Your task to perform on an android device: Clear the shopping cart on amazon. Search for usb-b on amazon, select the first entry, add it to the cart, then select checkout. Image 0: 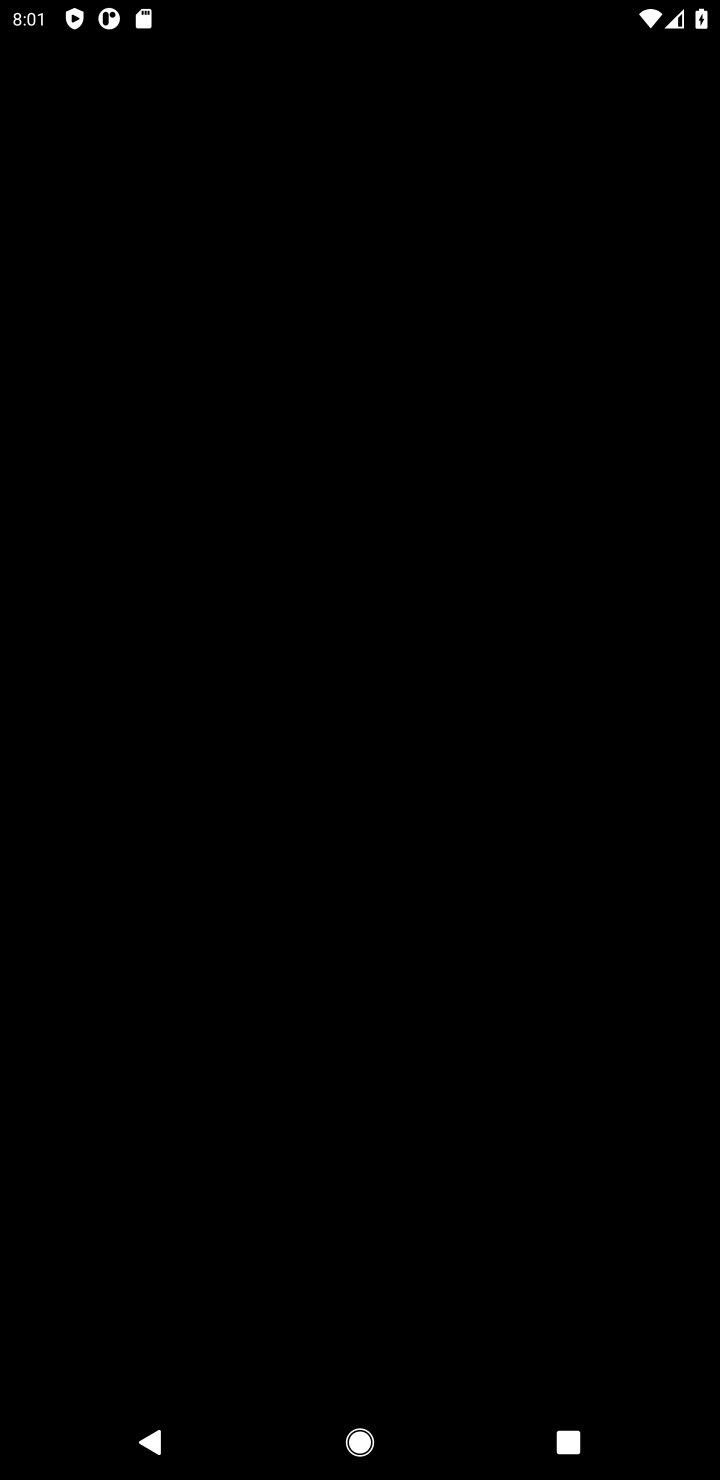
Step 0: press home button
Your task to perform on an android device: Clear the shopping cart on amazon. Search for usb-b on amazon, select the first entry, add it to the cart, then select checkout. Image 1: 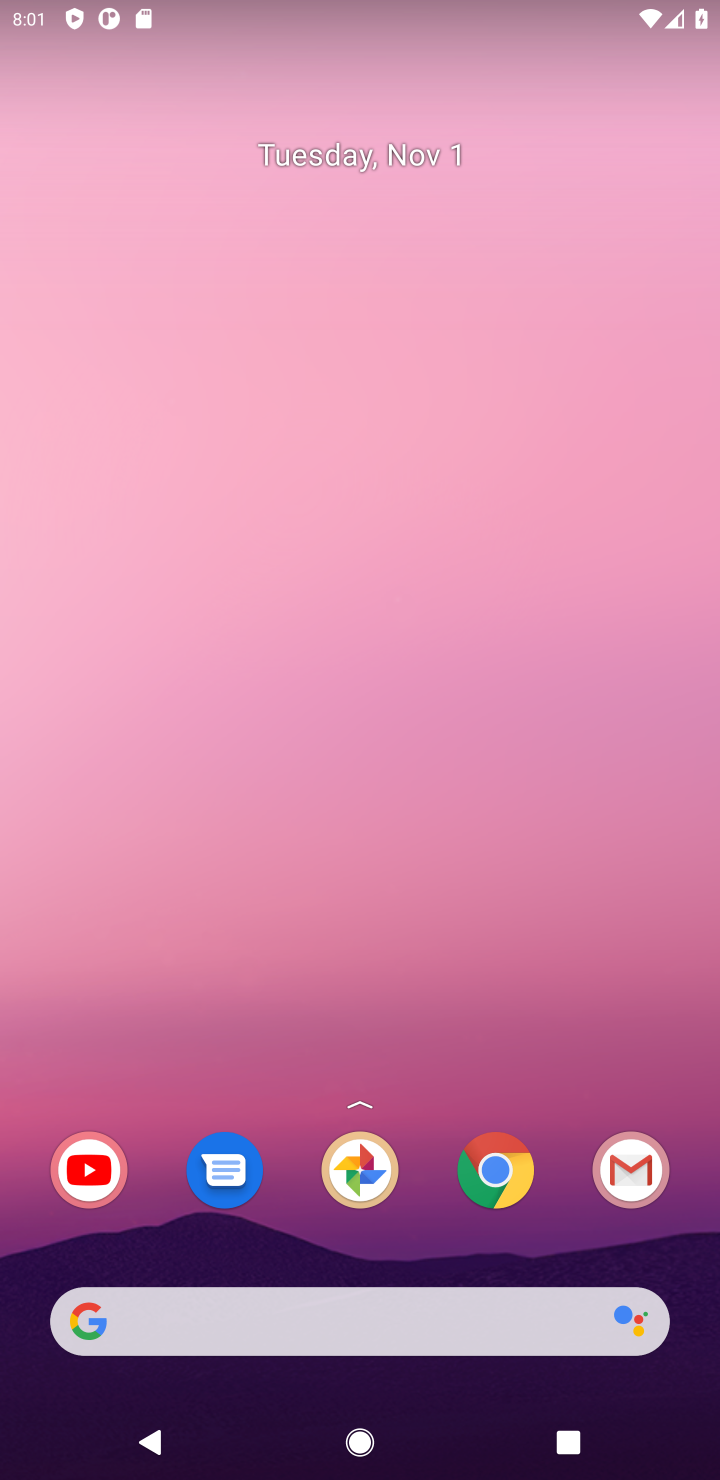
Step 1: click (515, 1199)
Your task to perform on an android device: Clear the shopping cart on amazon. Search for usb-b on amazon, select the first entry, add it to the cart, then select checkout. Image 2: 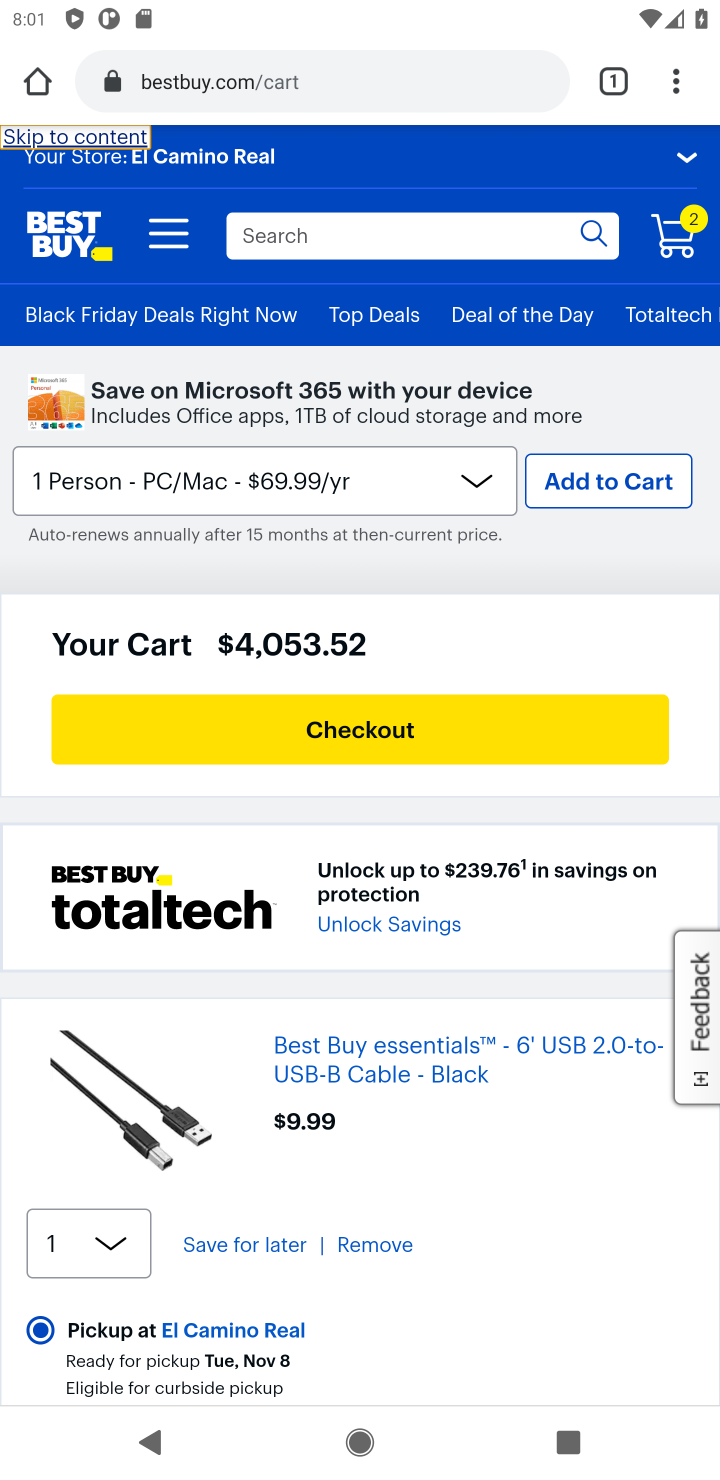
Step 2: click (360, 80)
Your task to perform on an android device: Clear the shopping cart on amazon. Search for usb-b on amazon, select the first entry, add it to the cart, then select checkout. Image 3: 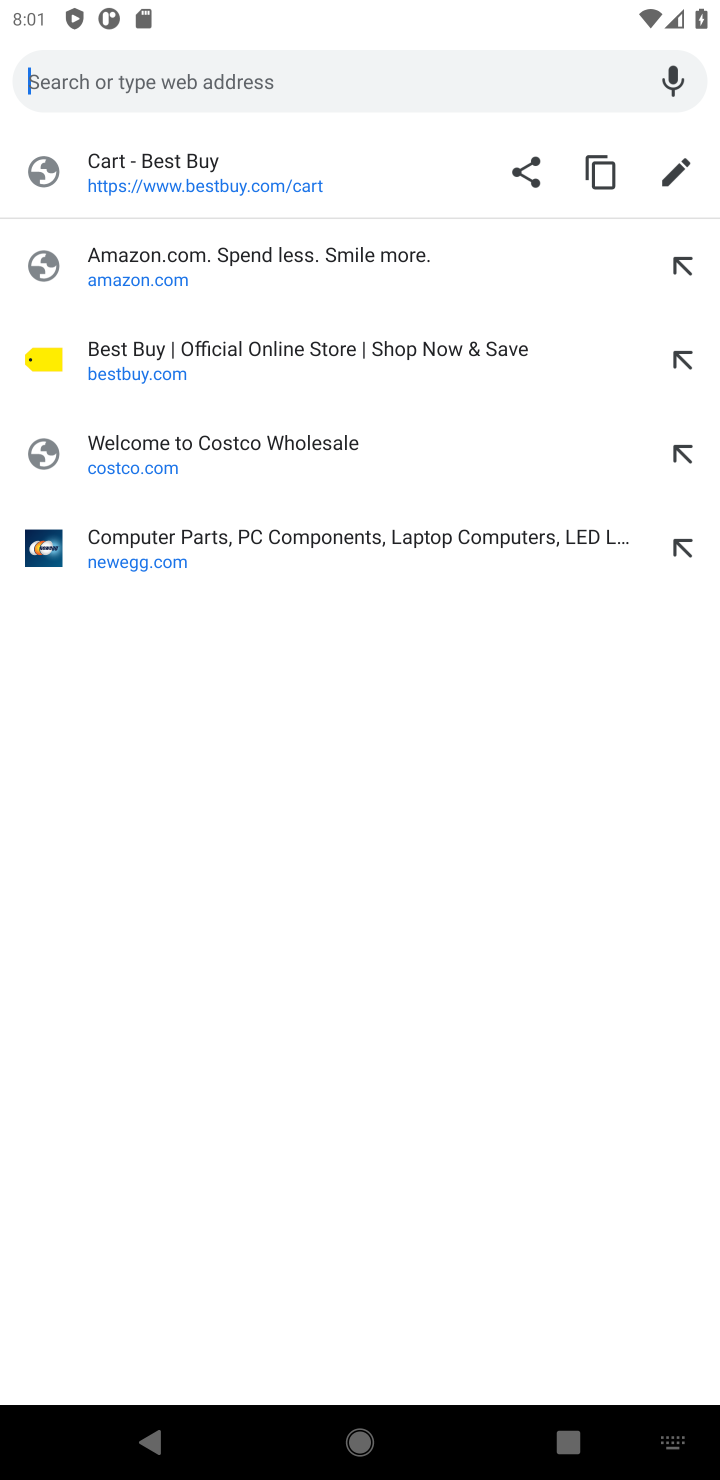
Step 3: type "amazon"
Your task to perform on an android device: Clear the shopping cart on amazon. Search for usb-b on amazon, select the first entry, add it to the cart, then select checkout. Image 4: 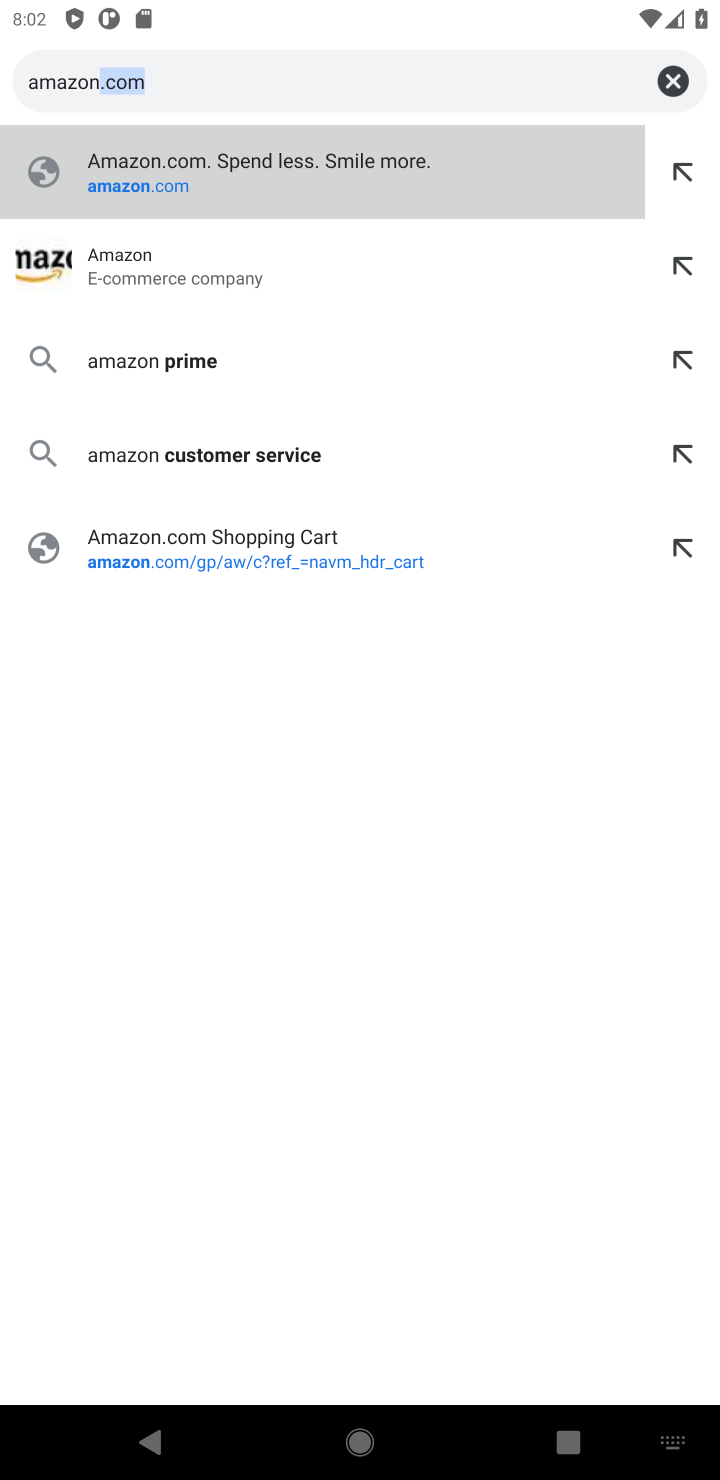
Step 4: press enter
Your task to perform on an android device: Clear the shopping cart on amazon. Search for usb-b on amazon, select the first entry, add it to the cart, then select checkout. Image 5: 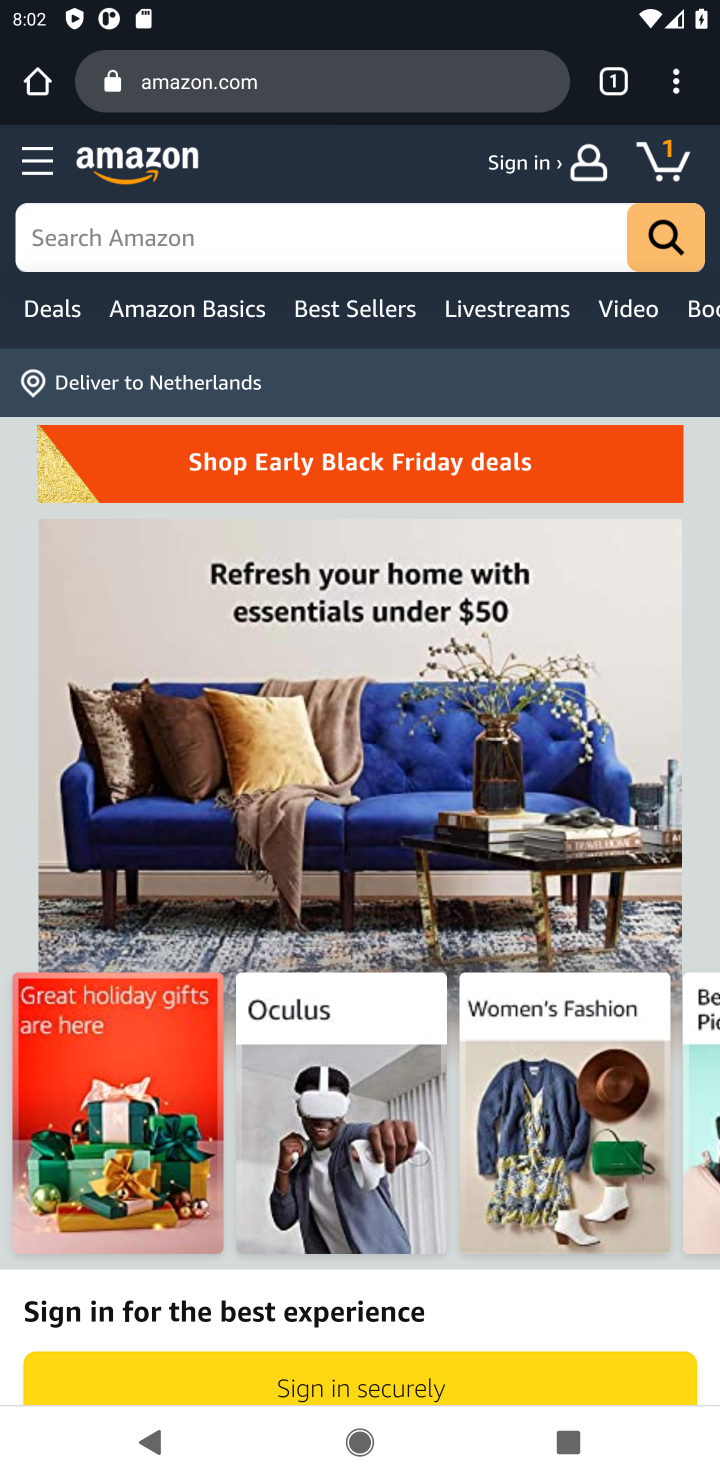
Step 5: click (660, 151)
Your task to perform on an android device: Clear the shopping cart on amazon. Search for usb-b on amazon, select the first entry, add it to the cart, then select checkout. Image 6: 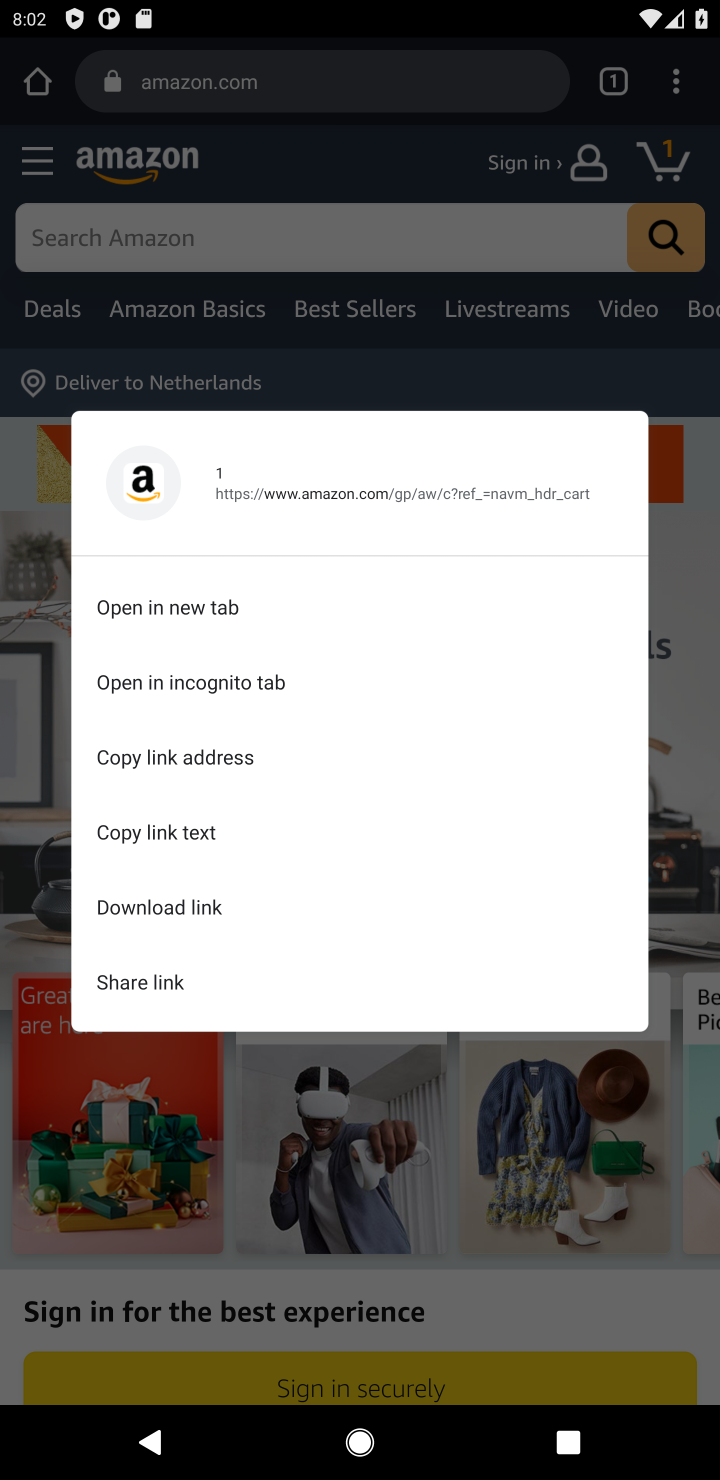
Step 6: click (672, 150)
Your task to perform on an android device: Clear the shopping cart on amazon. Search for usb-b on amazon, select the first entry, add it to the cart, then select checkout. Image 7: 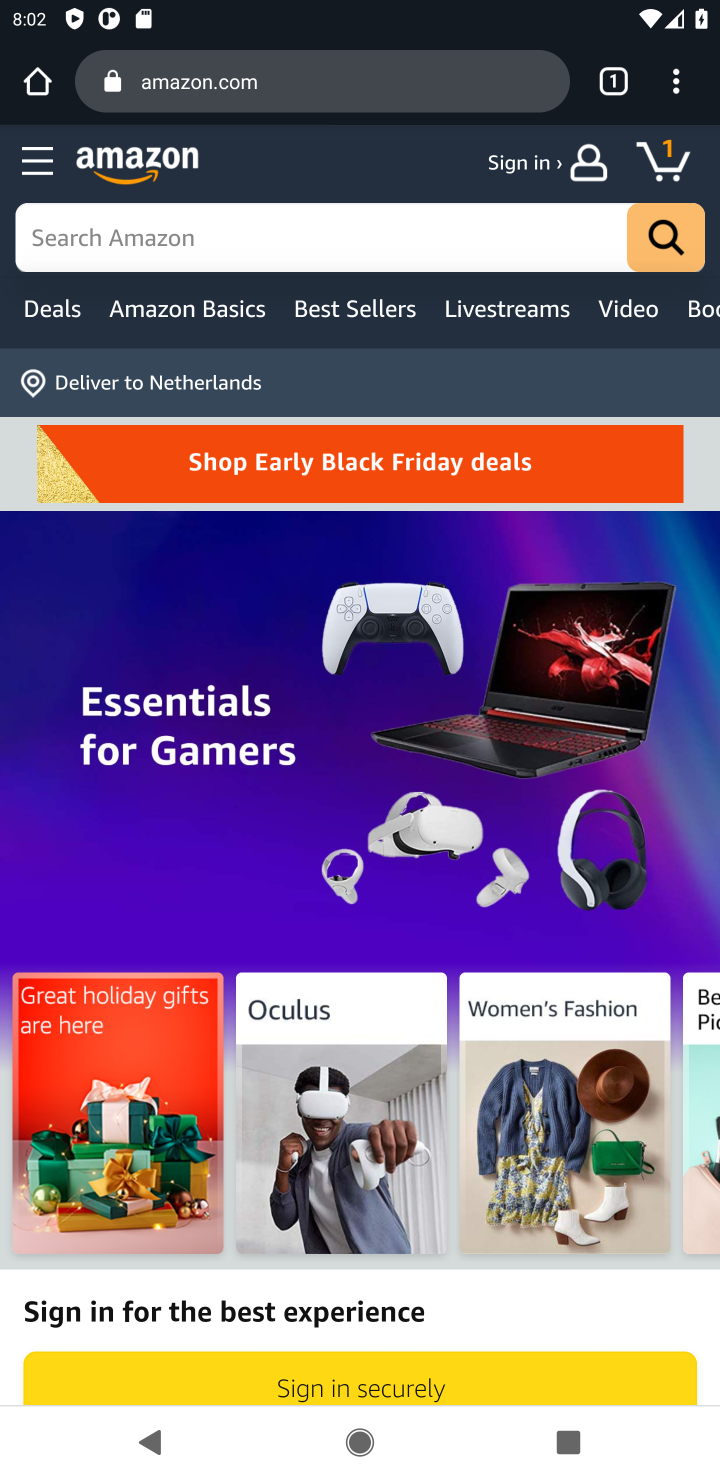
Step 7: click (672, 173)
Your task to perform on an android device: Clear the shopping cart on amazon. Search for usb-b on amazon, select the first entry, add it to the cart, then select checkout. Image 8: 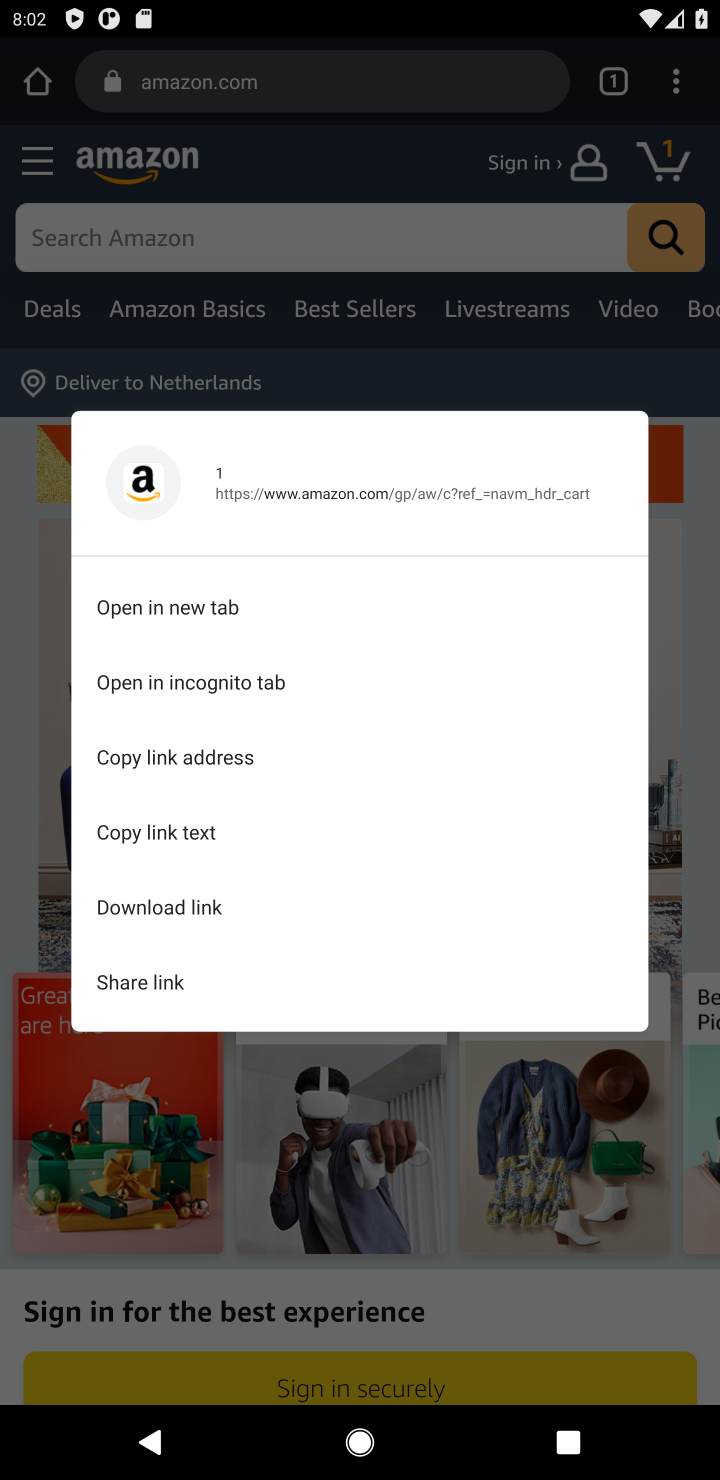
Step 8: click (665, 173)
Your task to perform on an android device: Clear the shopping cart on amazon. Search for usb-b on amazon, select the first entry, add it to the cart, then select checkout. Image 9: 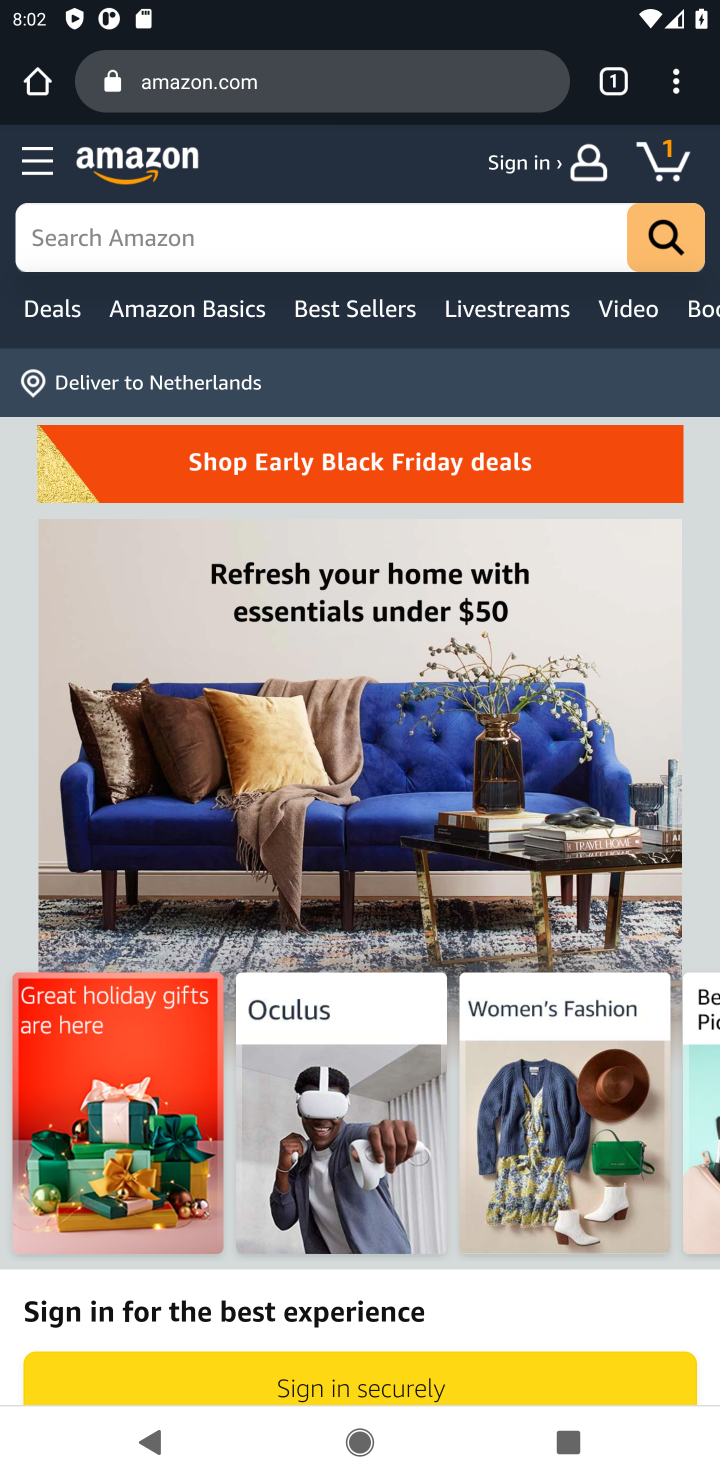
Step 9: click (667, 163)
Your task to perform on an android device: Clear the shopping cart on amazon. Search for usb-b on amazon, select the first entry, add it to the cart, then select checkout. Image 10: 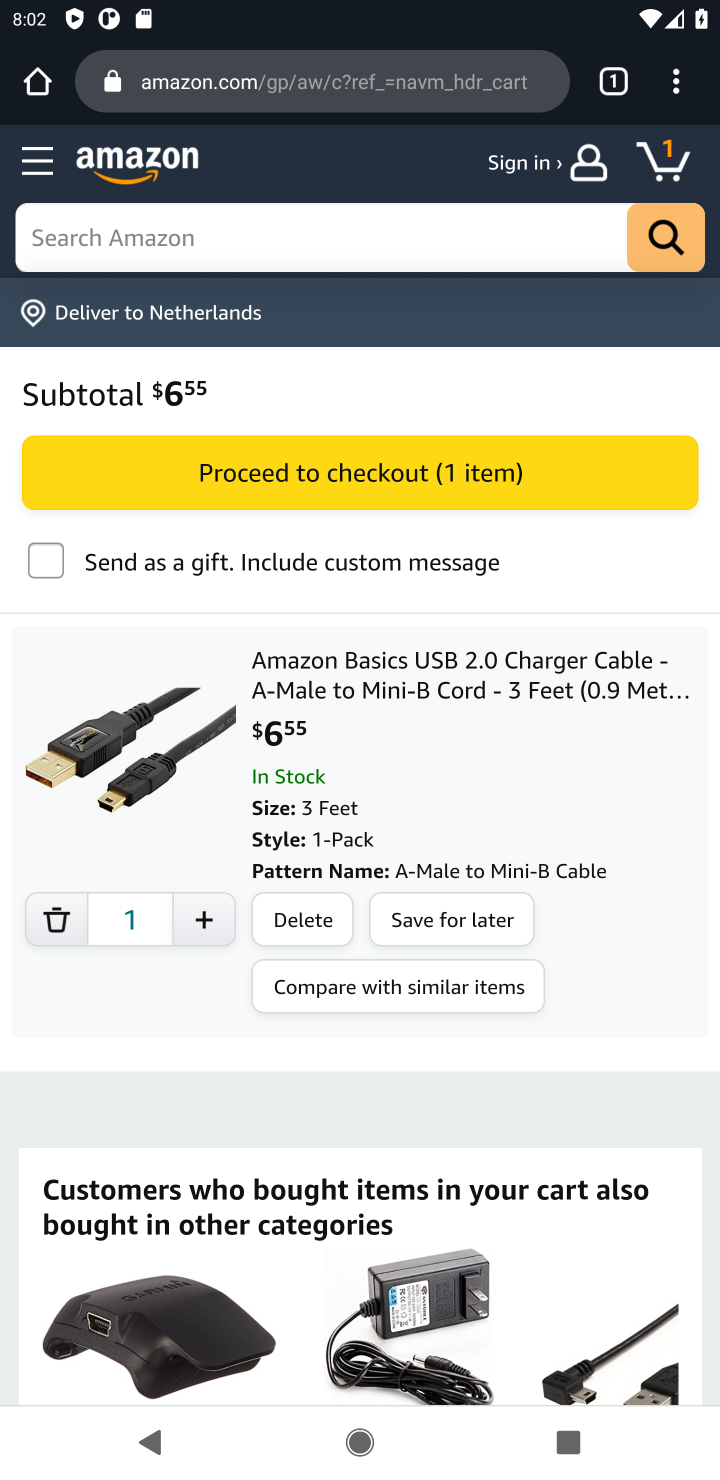
Step 10: click (62, 916)
Your task to perform on an android device: Clear the shopping cart on amazon. Search for usb-b on amazon, select the first entry, add it to the cart, then select checkout. Image 11: 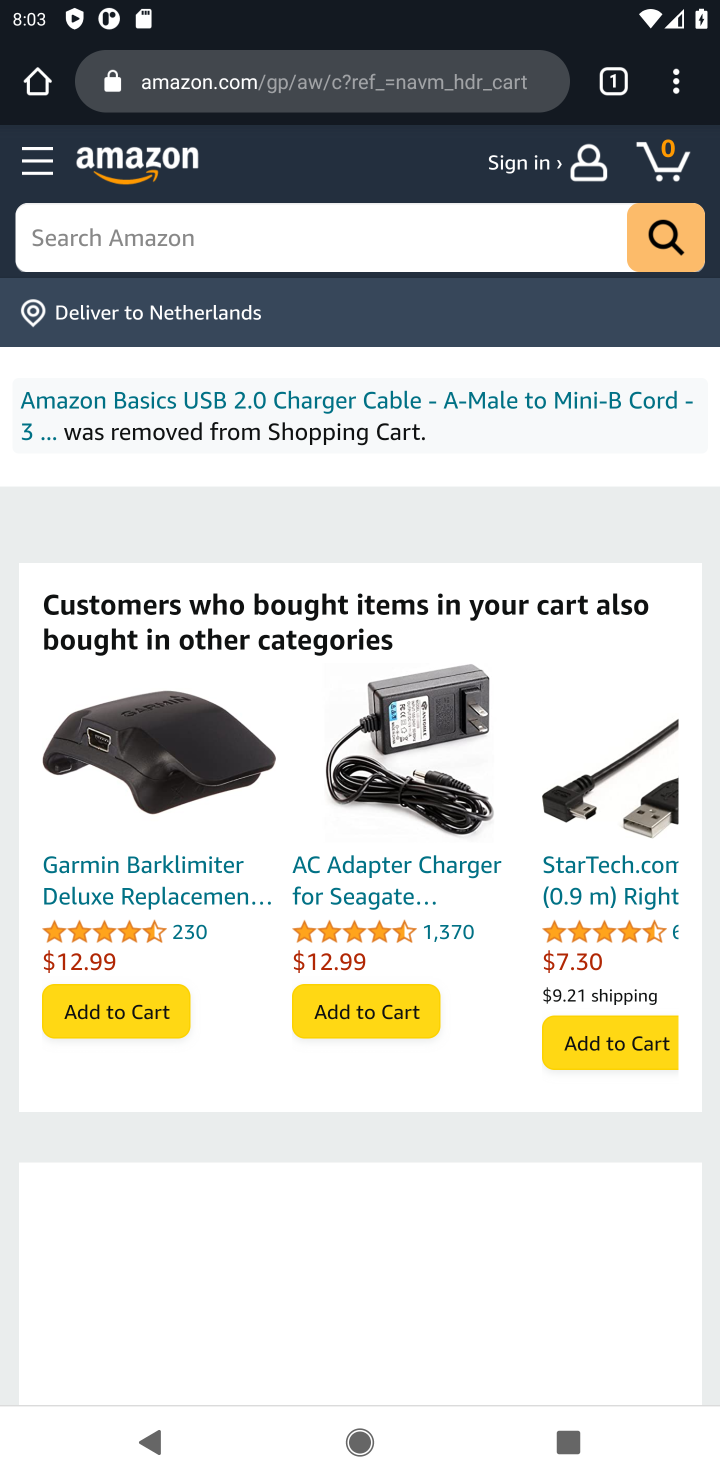
Step 11: click (344, 248)
Your task to perform on an android device: Clear the shopping cart on amazon. Search for usb-b on amazon, select the first entry, add it to the cart, then select checkout. Image 12: 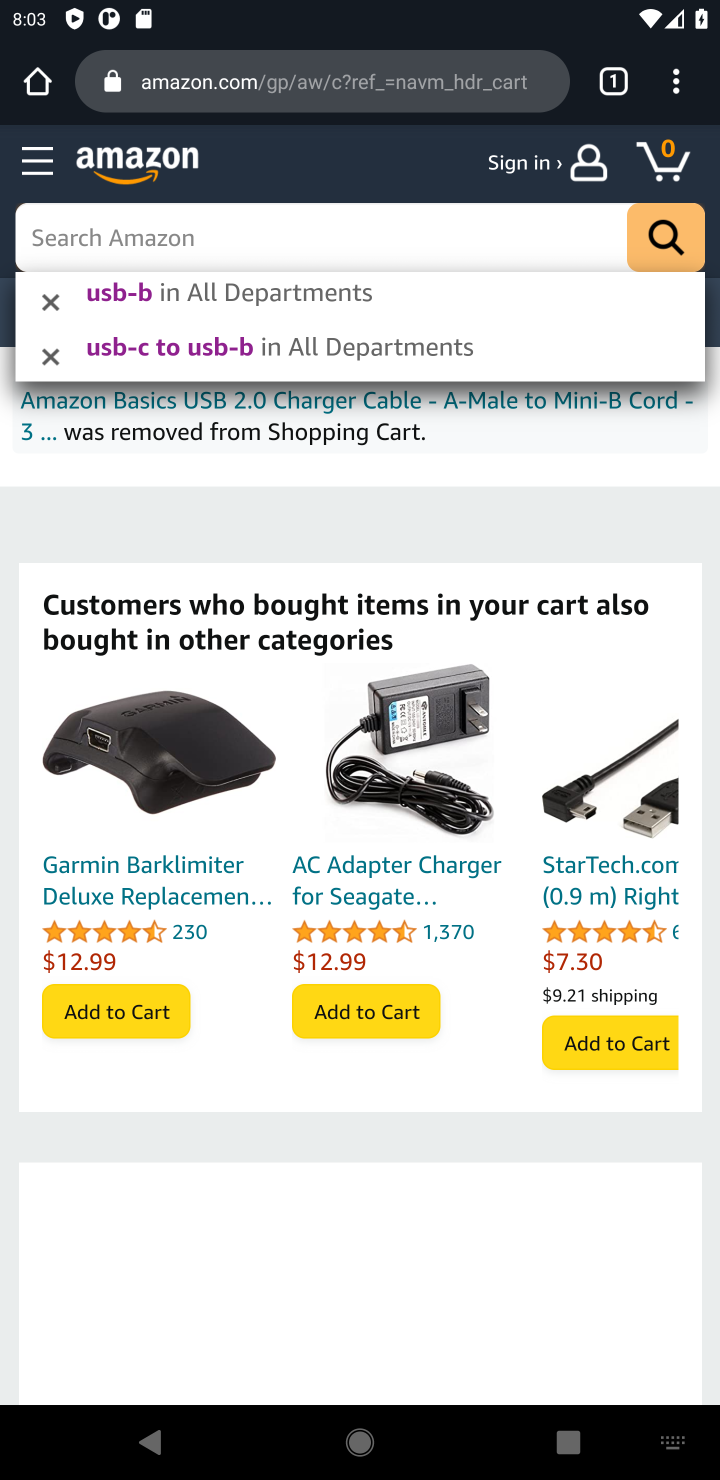
Step 12: type "usb-b"
Your task to perform on an android device: Clear the shopping cart on amazon. Search for usb-b on amazon, select the first entry, add it to the cart, then select checkout. Image 13: 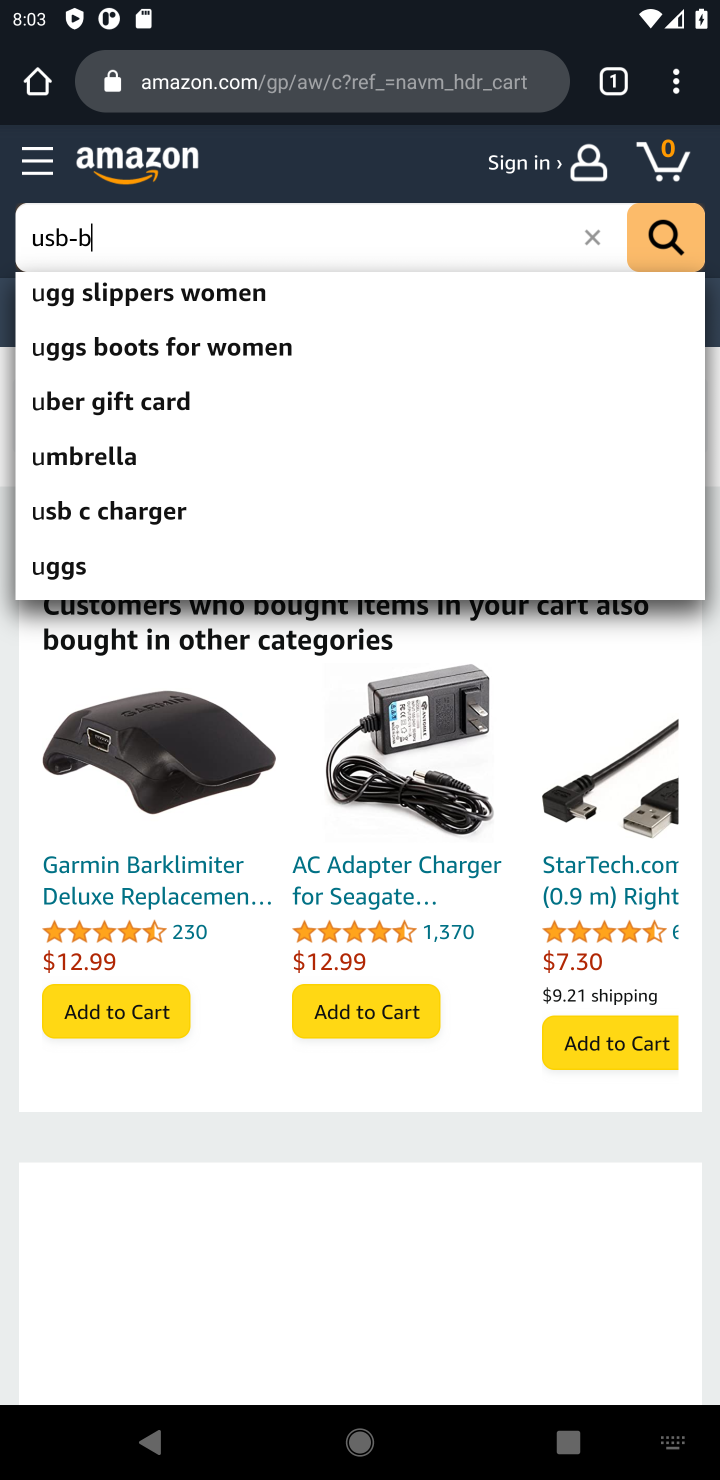
Step 13: type ""
Your task to perform on an android device: Clear the shopping cart on amazon. Search for usb-b on amazon, select the first entry, add it to the cart, then select checkout. Image 14: 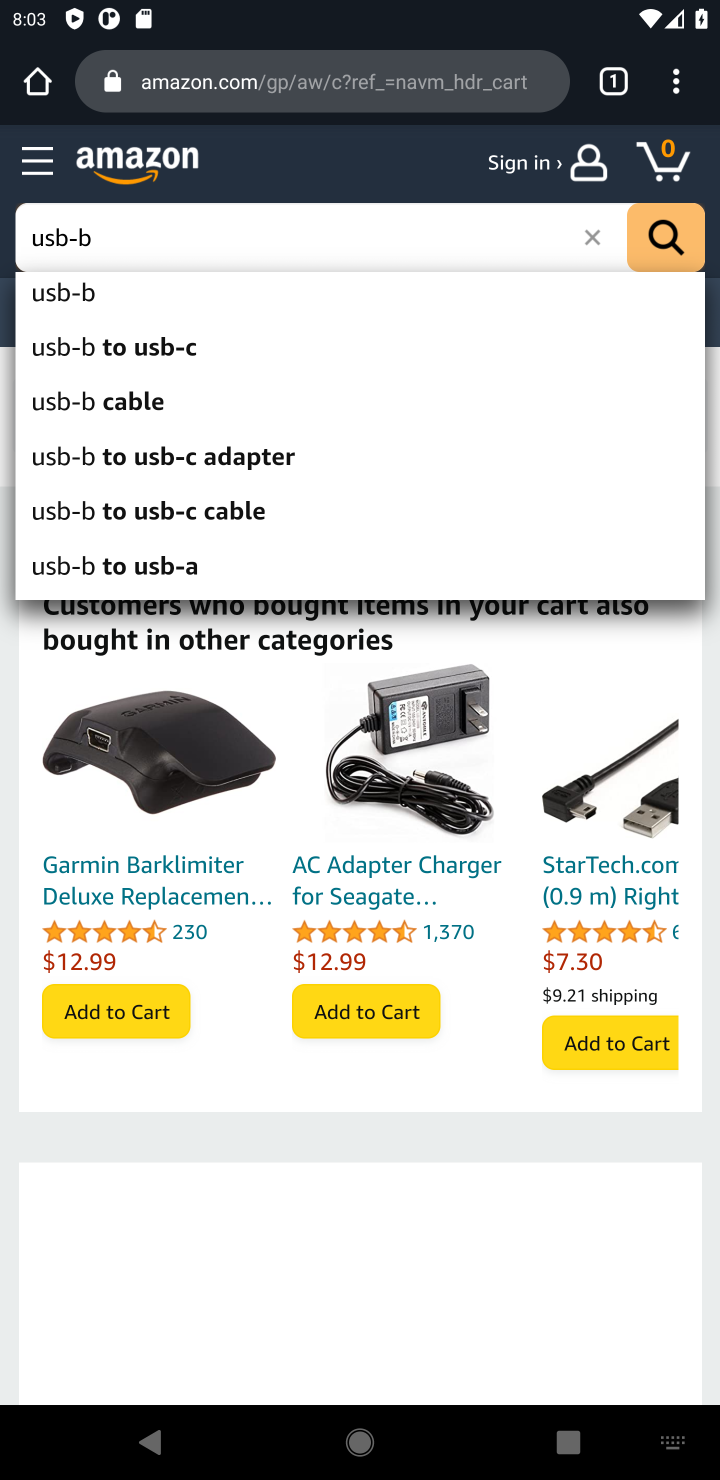
Step 14: press enter
Your task to perform on an android device: Clear the shopping cart on amazon. Search for usb-b on amazon, select the first entry, add it to the cart, then select checkout. Image 15: 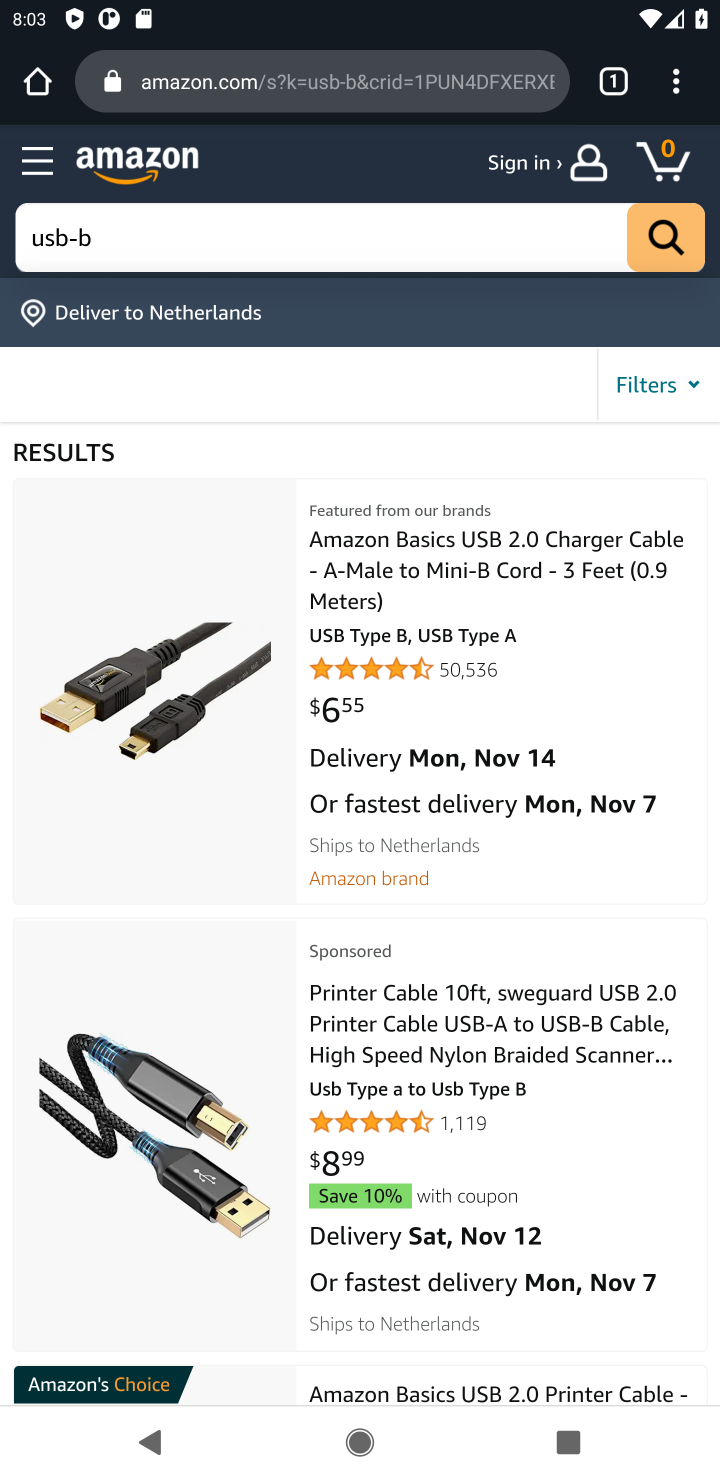
Step 15: click (430, 590)
Your task to perform on an android device: Clear the shopping cart on amazon. Search for usb-b on amazon, select the first entry, add it to the cart, then select checkout. Image 16: 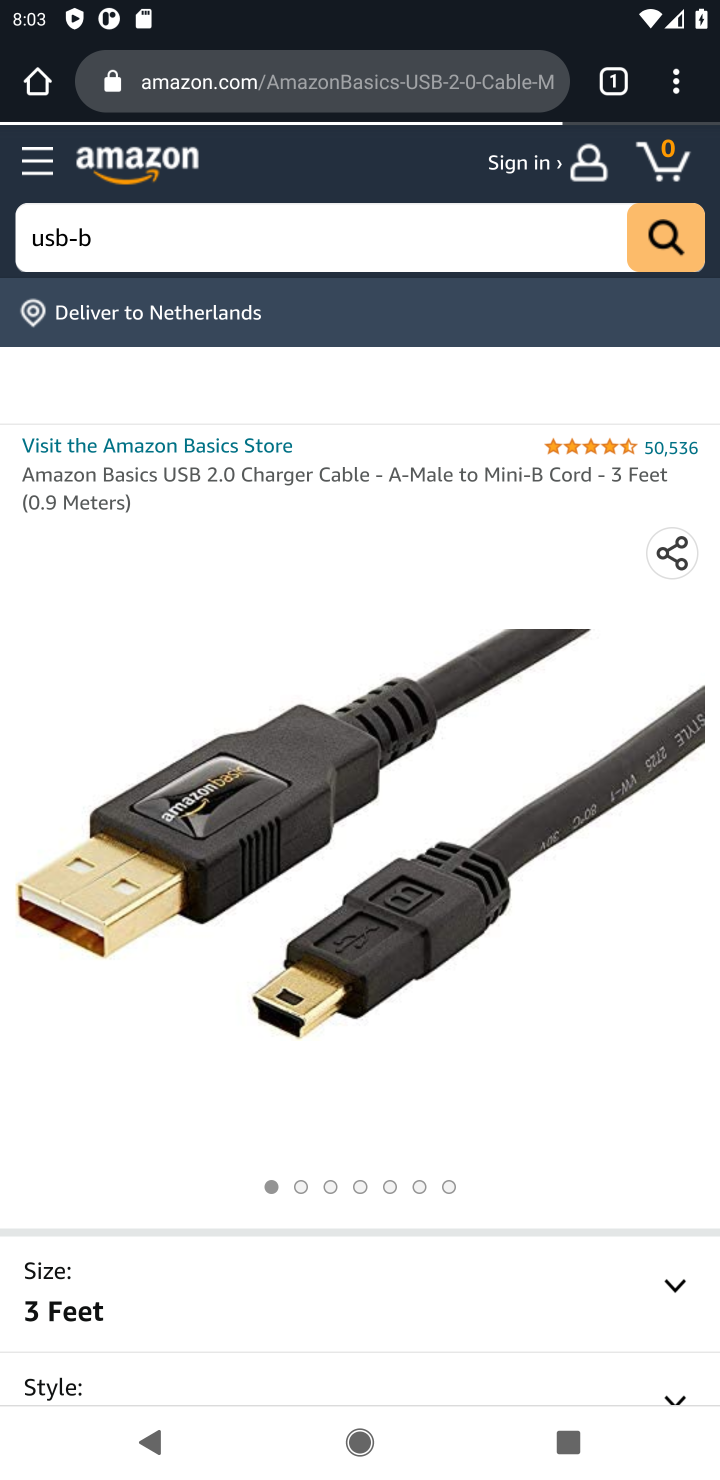
Step 16: drag from (493, 1219) to (396, 370)
Your task to perform on an android device: Clear the shopping cart on amazon. Search for usb-b on amazon, select the first entry, add it to the cart, then select checkout. Image 17: 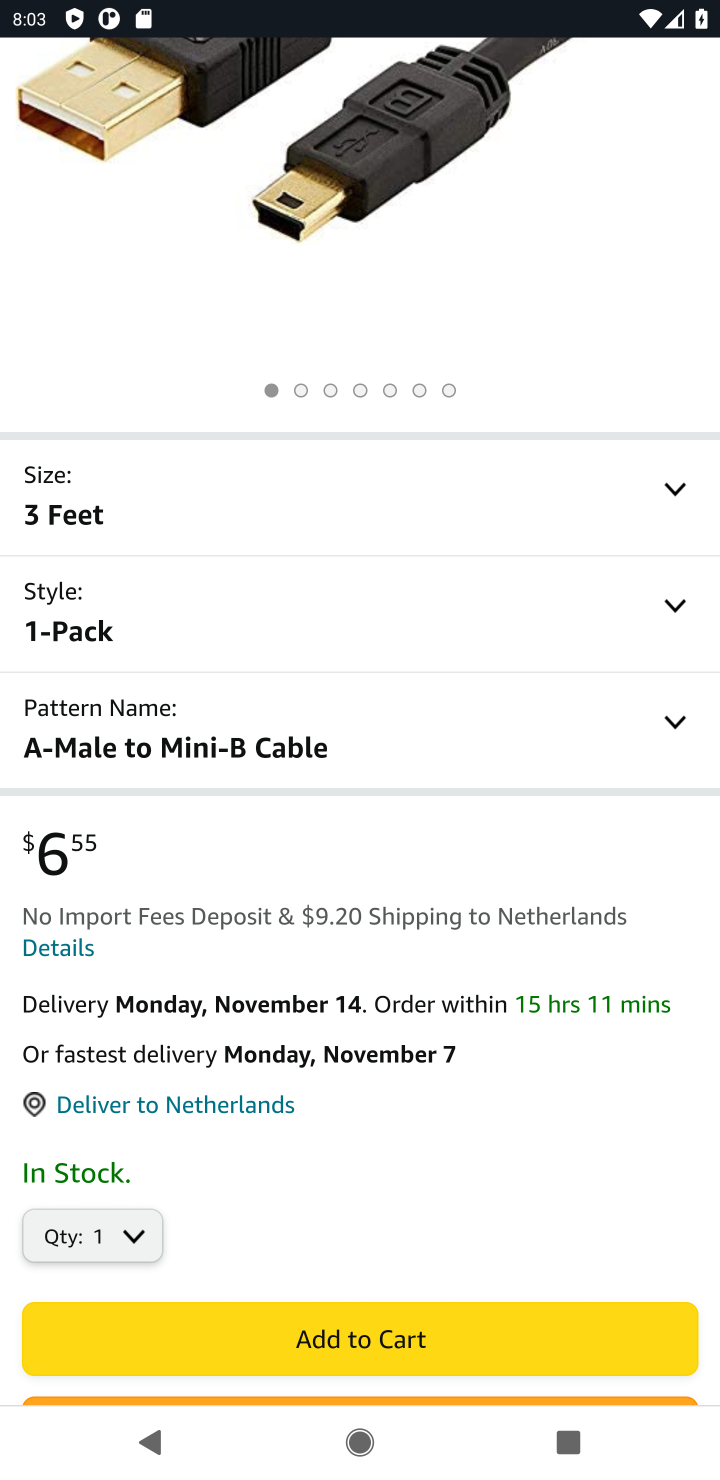
Step 17: click (469, 1328)
Your task to perform on an android device: Clear the shopping cart on amazon. Search for usb-b on amazon, select the first entry, add it to the cart, then select checkout. Image 18: 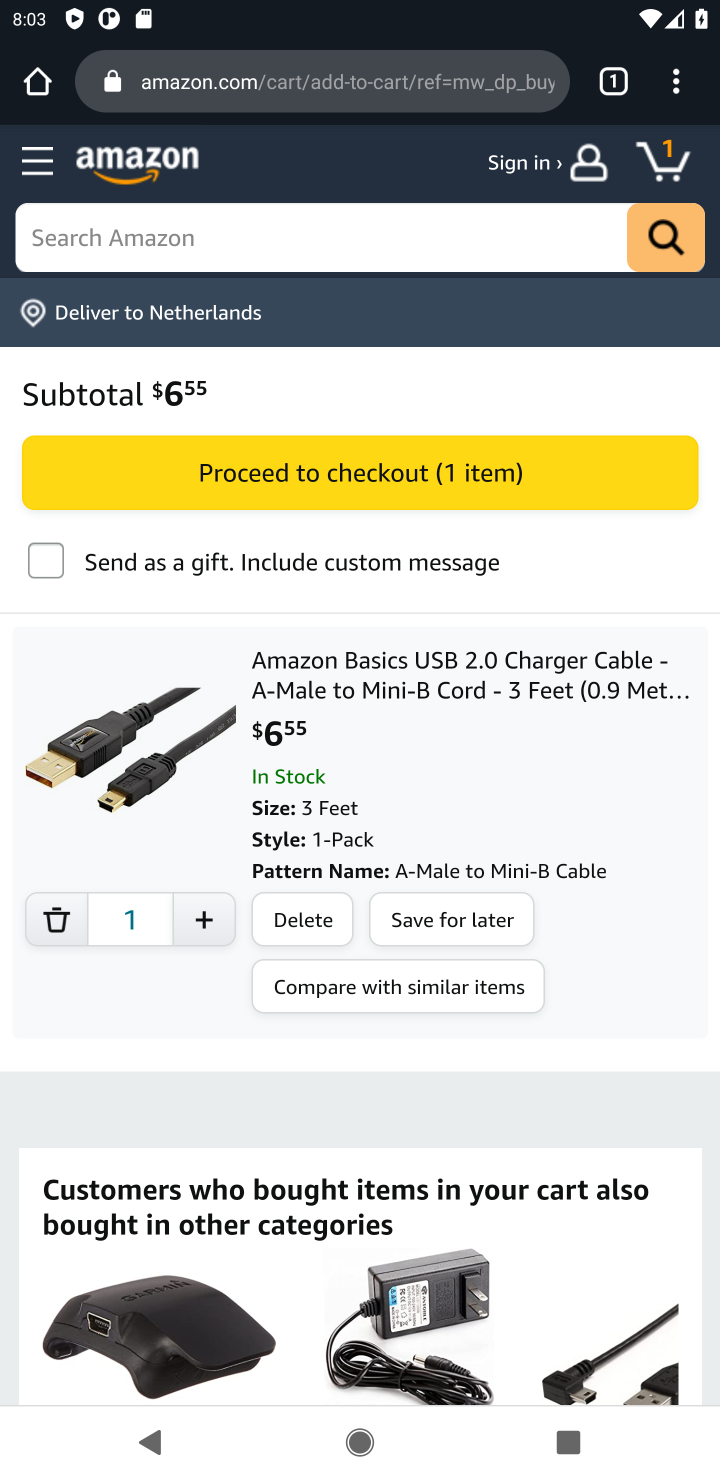
Step 18: task complete